Your task to perform on an android device: When is my next appointment? Image 0: 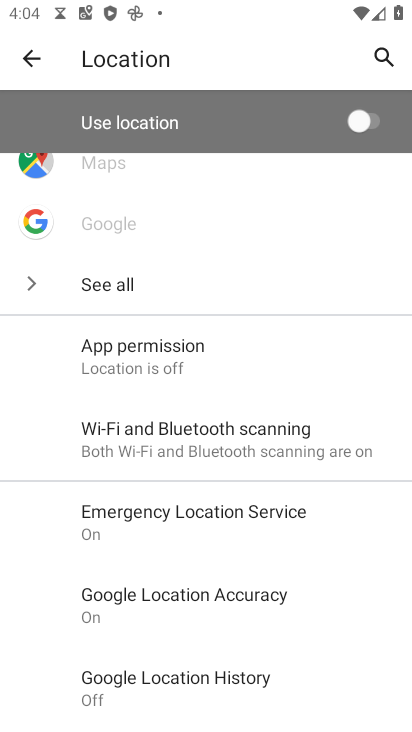
Step 0: press home button
Your task to perform on an android device: When is my next appointment? Image 1: 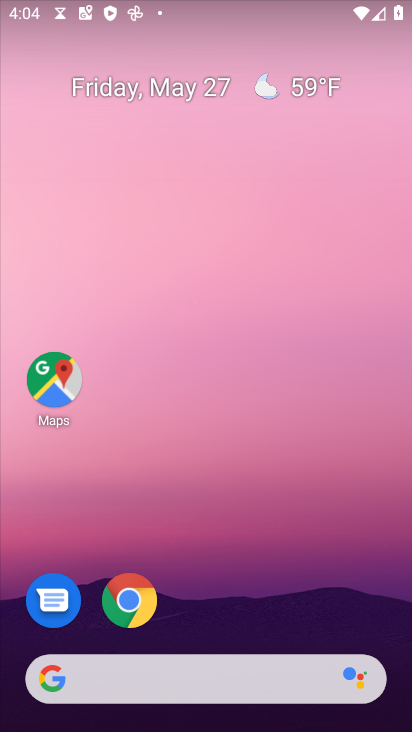
Step 1: drag from (244, 573) to (208, 180)
Your task to perform on an android device: When is my next appointment? Image 2: 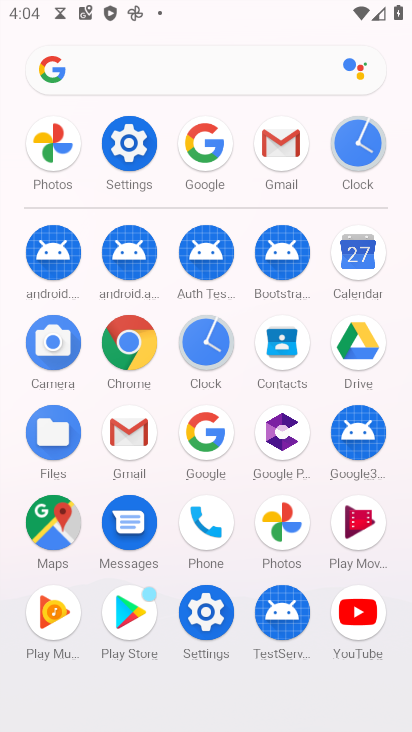
Step 2: click (357, 254)
Your task to perform on an android device: When is my next appointment? Image 3: 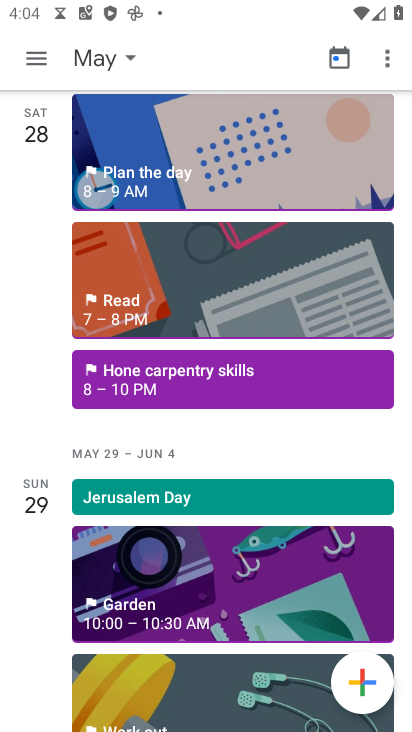
Step 3: click (341, 58)
Your task to perform on an android device: When is my next appointment? Image 4: 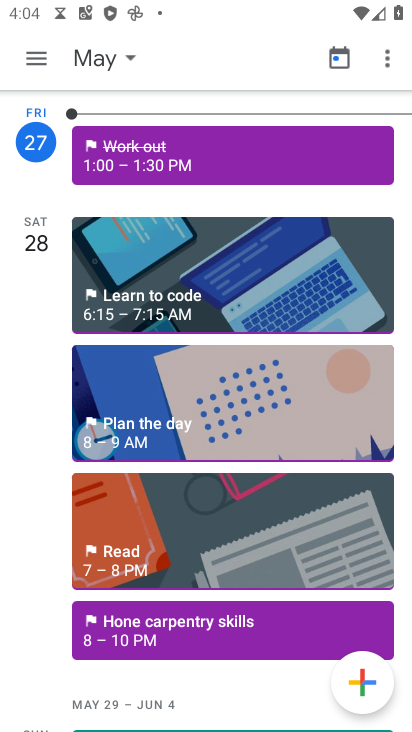
Step 4: click (130, 61)
Your task to perform on an android device: When is my next appointment? Image 5: 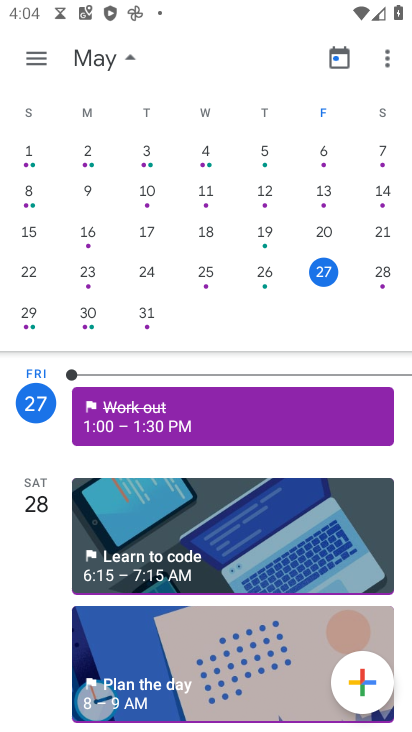
Step 5: click (390, 275)
Your task to perform on an android device: When is my next appointment? Image 6: 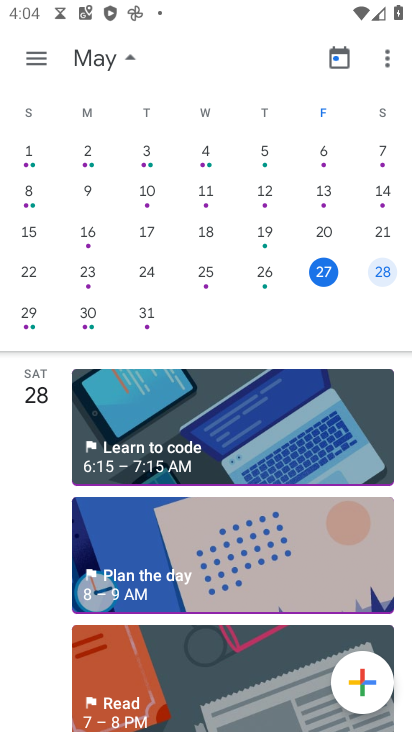
Step 6: click (41, 60)
Your task to perform on an android device: When is my next appointment? Image 7: 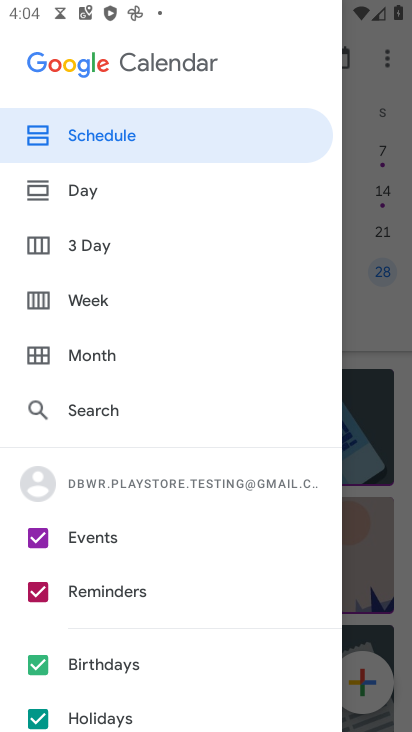
Step 7: click (92, 132)
Your task to perform on an android device: When is my next appointment? Image 8: 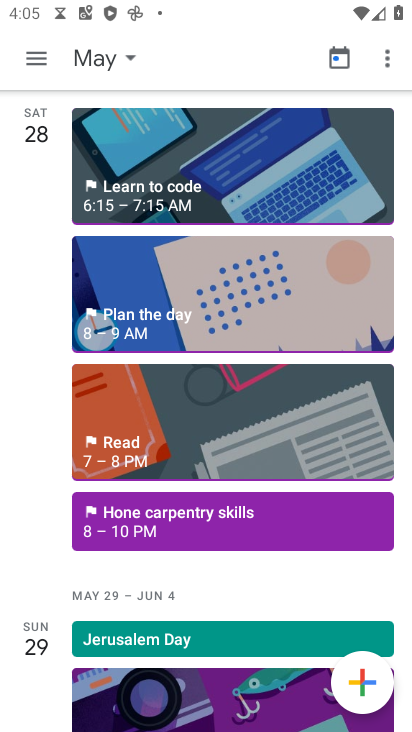
Step 8: task complete